Your task to perform on an android device: Open the phone app and click the voicemail tab. Image 0: 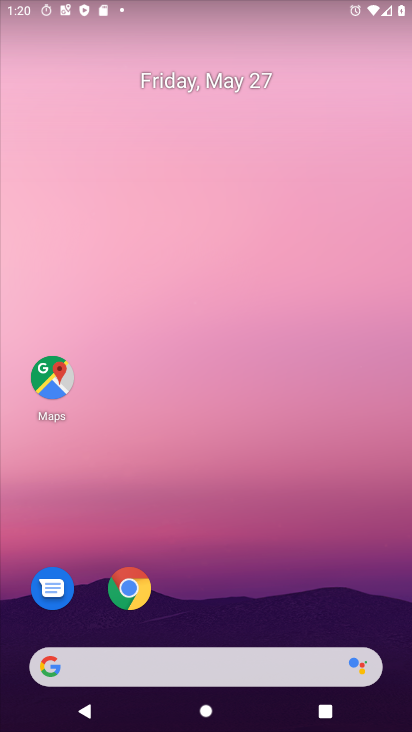
Step 0: press home button
Your task to perform on an android device: Open the phone app and click the voicemail tab. Image 1: 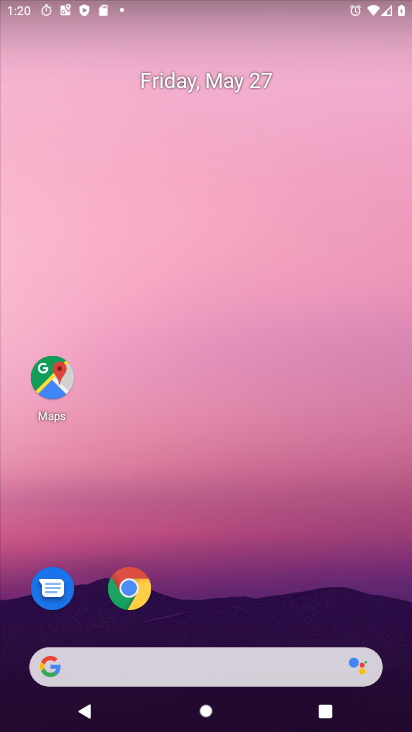
Step 1: drag from (217, 625) to (195, 15)
Your task to perform on an android device: Open the phone app and click the voicemail tab. Image 2: 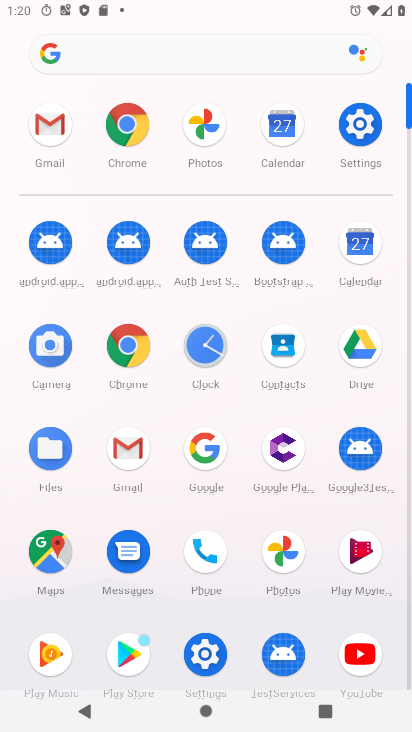
Step 2: click (200, 544)
Your task to perform on an android device: Open the phone app and click the voicemail tab. Image 3: 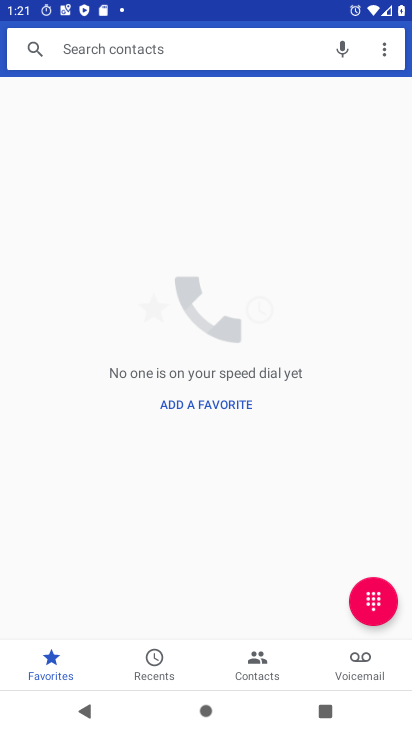
Step 3: click (357, 654)
Your task to perform on an android device: Open the phone app and click the voicemail tab. Image 4: 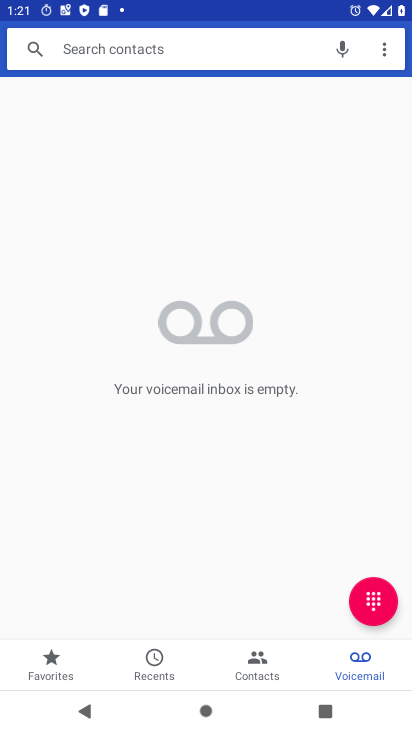
Step 4: task complete